Your task to perform on an android device: turn off wifi Image 0: 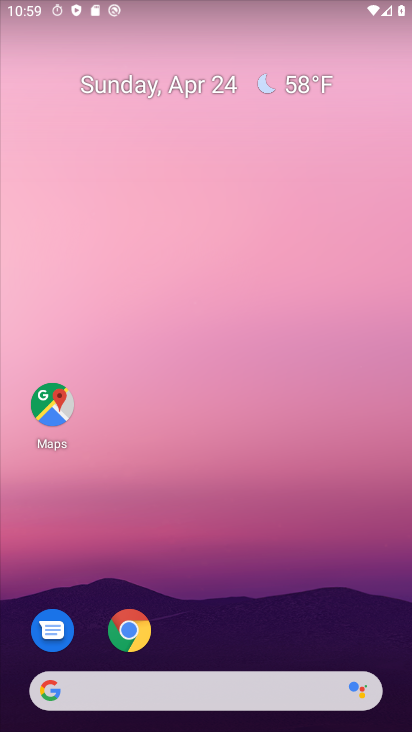
Step 0: drag from (197, 546) to (242, 301)
Your task to perform on an android device: turn off wifi Image 1: 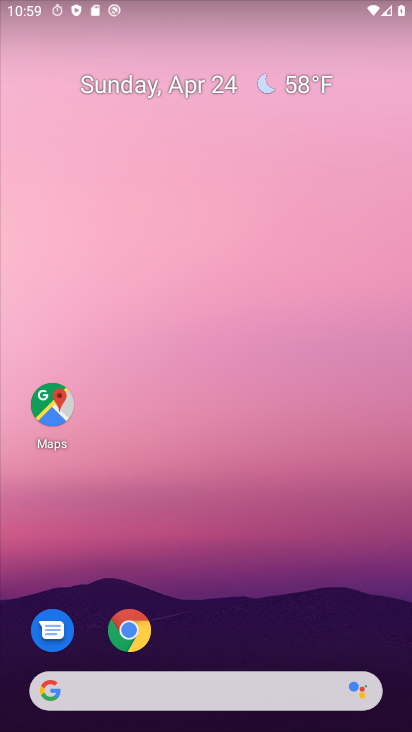
Step 1: drag from (240, 446) to (295, 184)
Your task to perform on an android device: turn off wifi Image 2: 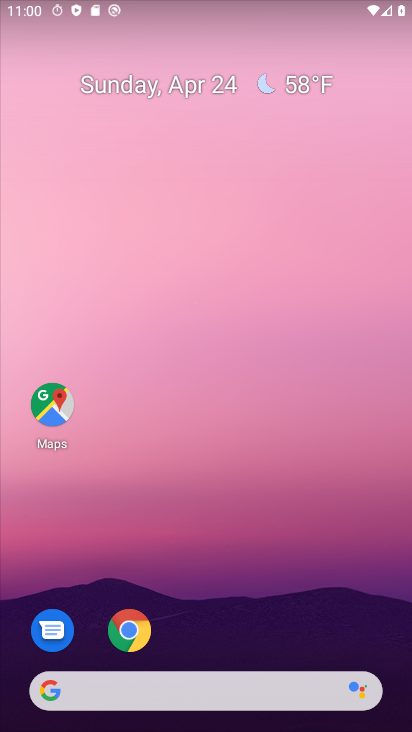
Step 2: drag from (188, 708) to (267, 332)
Your task to perform on an android device: turn off wifi Image 3: 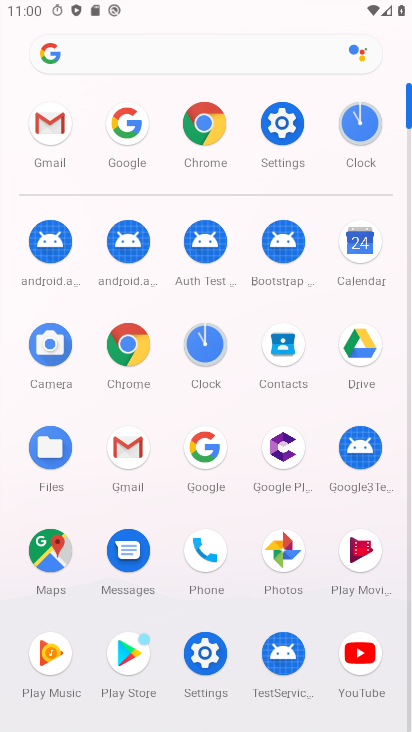
Step 3: click (289, 127)
Your task to perform on an android device: turn off wifi Image 4: 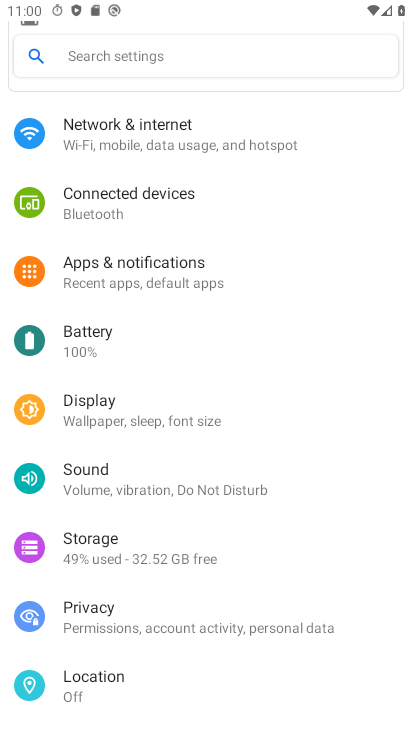
Step 4: click (254, 153)
Your task to perform on an android device: turn off wifi Image 5: 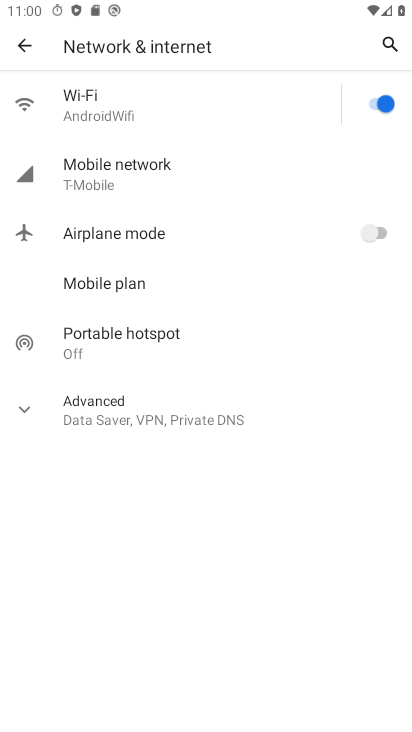
Step 5: click (202, 121)
Your task to perform on an android device: turn off wifi Image 6: 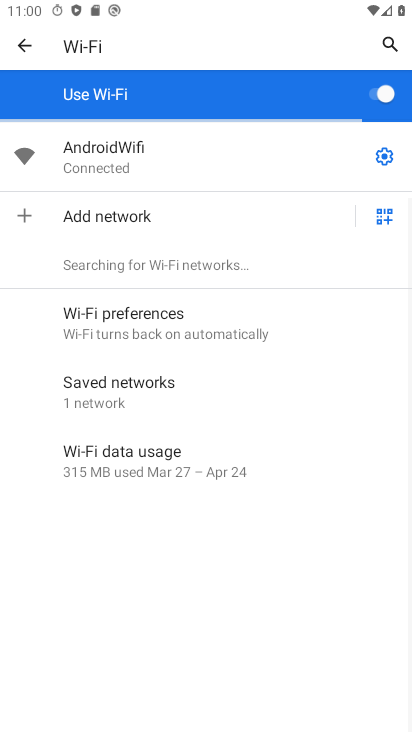
Step 6: task complete